Your task to perform on an android device: Open Wikipedia Image 0: 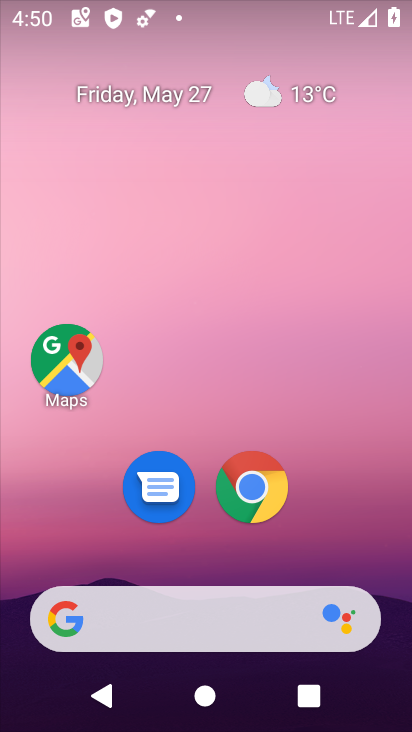
Step 0: drag from (345, 470) to (333, 63)
Your task to perform on an android device: Open Wikipedia Image 1: 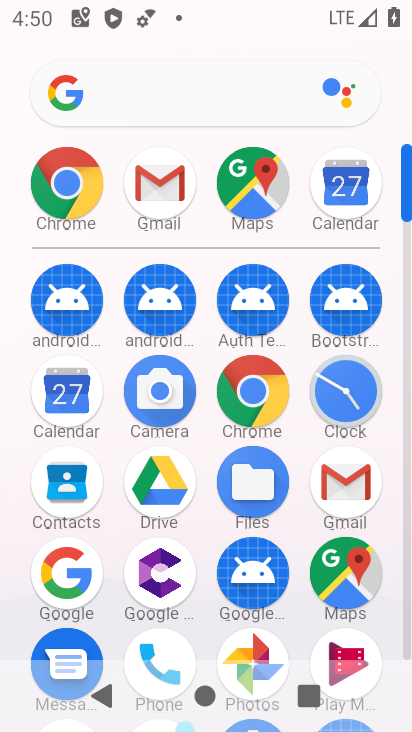
Step 1: click (258, 385)
Your task to perform on an android device: Open Wikipedia Image 2: 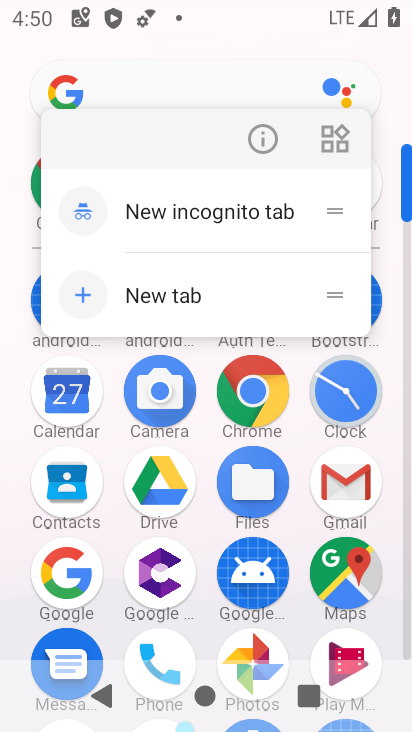
Step 2: click (244, 394)
Your task to perform on an android device: Open Wikipedia Image 3: 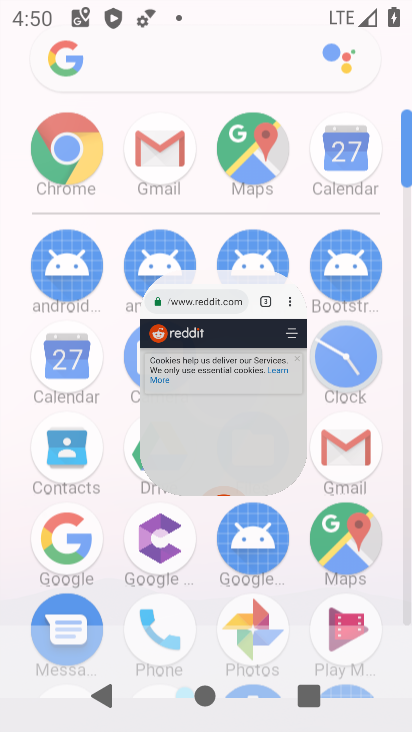
Step 3: click (250, 394)
Your task to perform on an android device: Open Wikipedia Image 4: 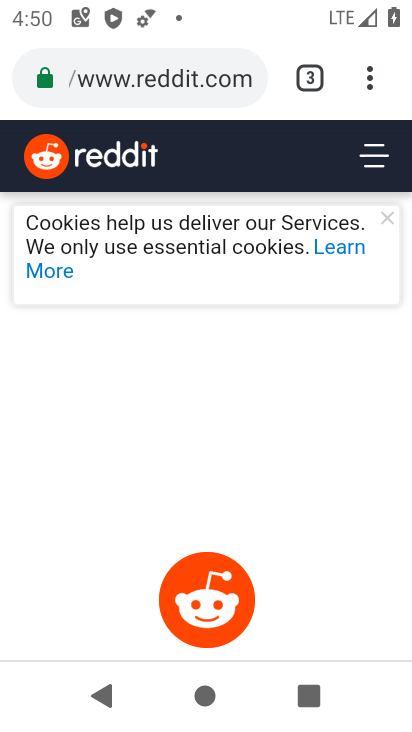
Step 4: click (216, 89)
Your task to perform on an android device: Open Wikipedia Image 5: 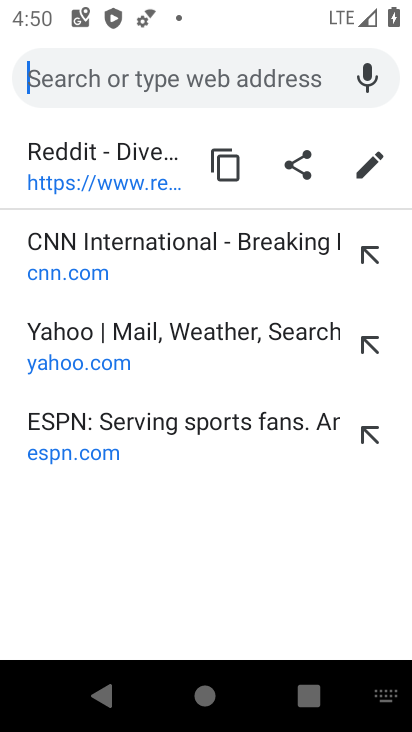
Step 5: type "wikipedia"
Your task to perform on an android device: Open Wikipedia Image 6: 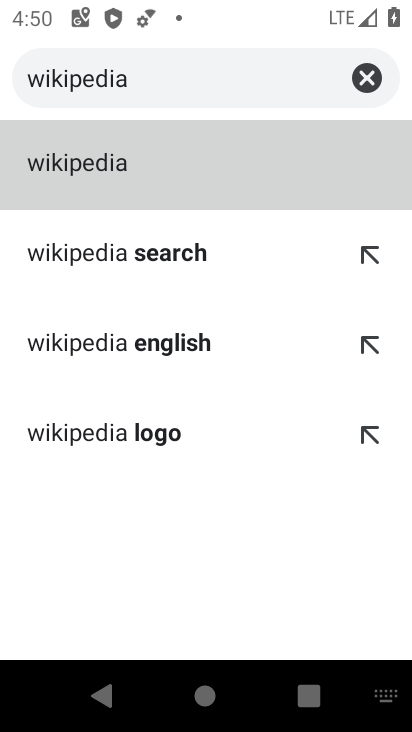
Step 6: click (70, 158)
Your task to perform on an android device: Open Wikipedia Image 7: 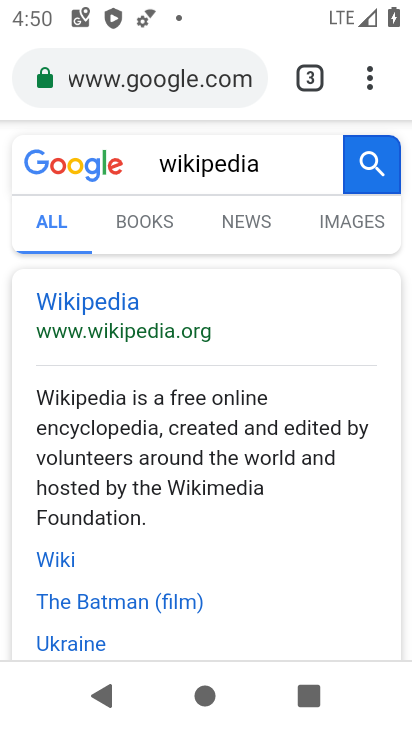
Step 7: click (113, 306)
Your task to perform on an android device: Open Wikipedia Image 8: 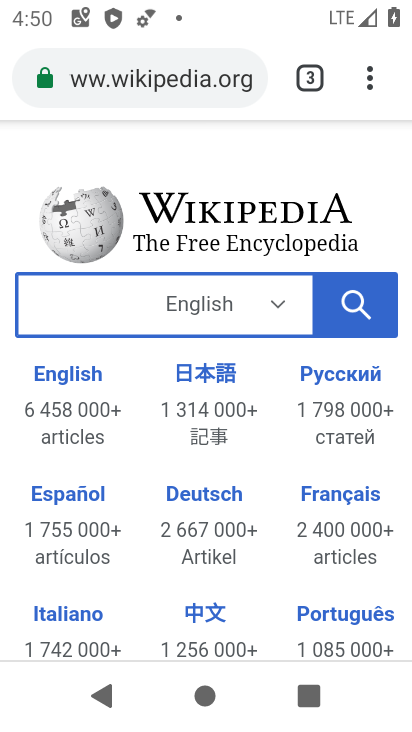
Step 8: task complete